Your task to perform on an android device: Is it going to rain this weekend? Image 0: 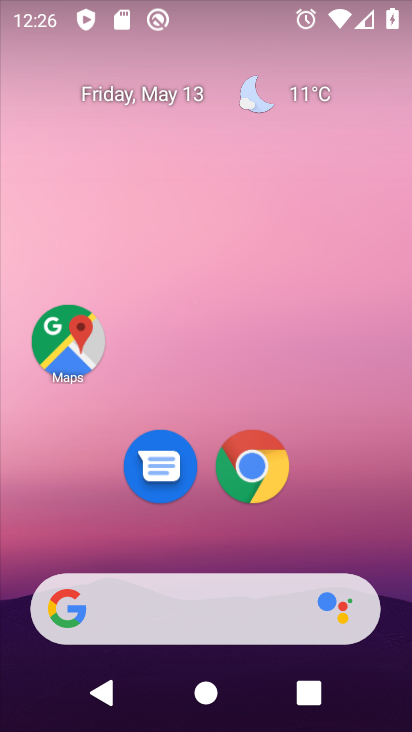
Step 0: drag from (386, 546) to (336, 243)
Your task to perform on an android device: Is it going to rain this weekend? Image 1: 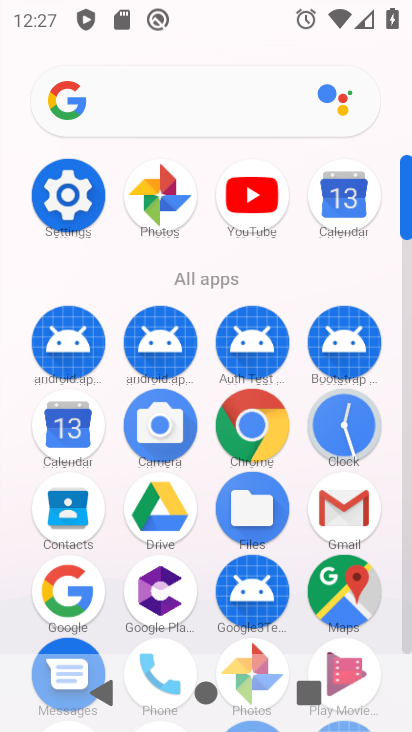
Step 1: drag from (215, 273) to (230, 612)
Your task to perform on an android device: Is it going to rain this weekend? Image 2: 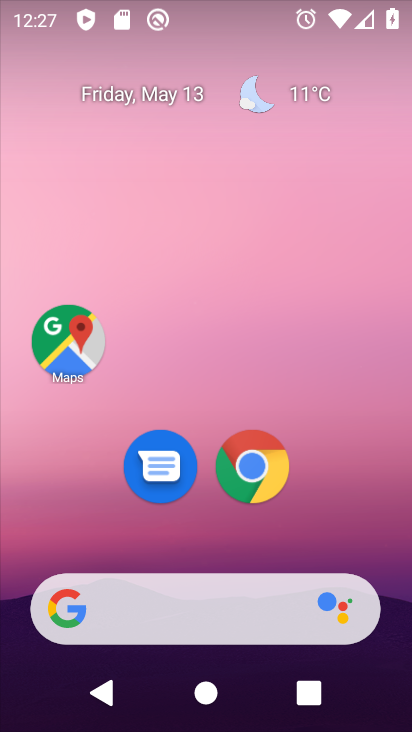
Step 2: click (315, 92)
Your task to perform on an android device: Is it going to rain this weekend? Image 3: 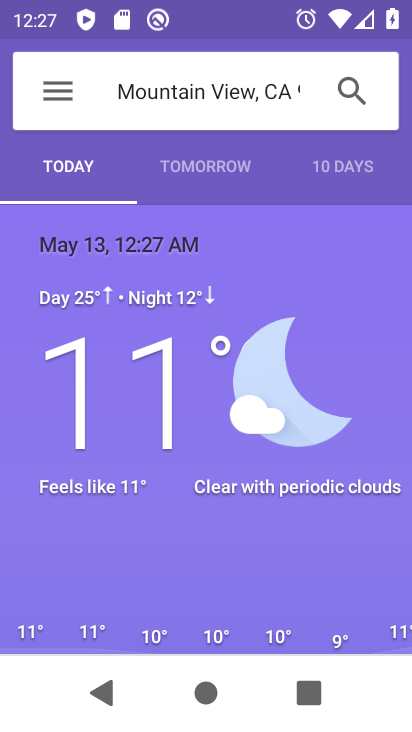
Step 3: click (322, 167)
Your task to perform on an android device: Is it going to rain this weekend? Image 4: 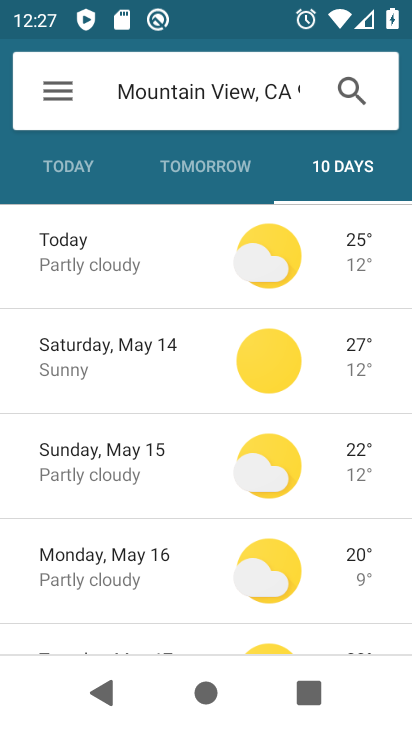
Step 4: task complete